Your task to perform on an android device: Go to settings Image 0: 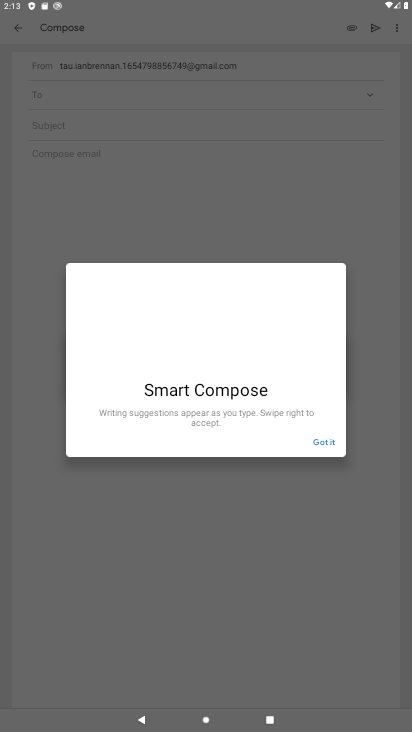
Step 0: press home button
Your task to perform on an android device: Go to settings Image 1: 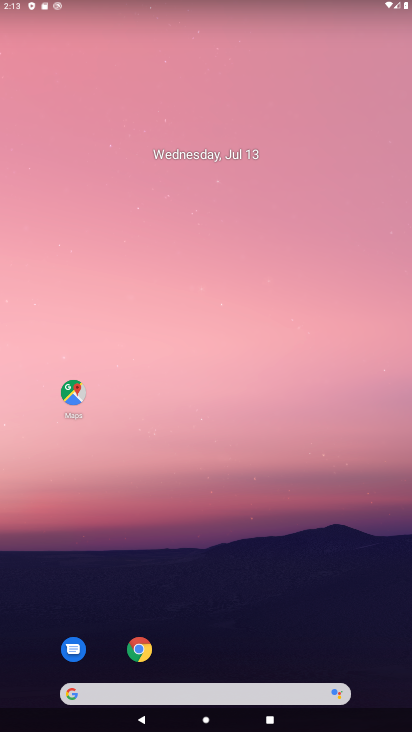
Step 1: drag from (198, 554) to (184, 171)
Your task to perform on an android device: Go to settings Image 2: 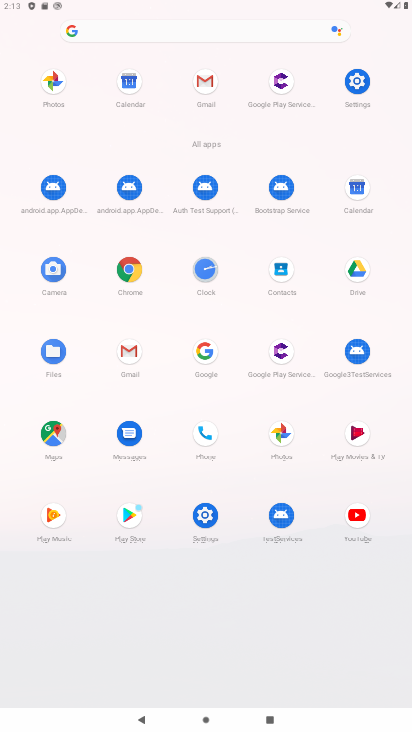
Step 2: click (357, 85)
Your task to perform on an android device: Go to settings Image 3: 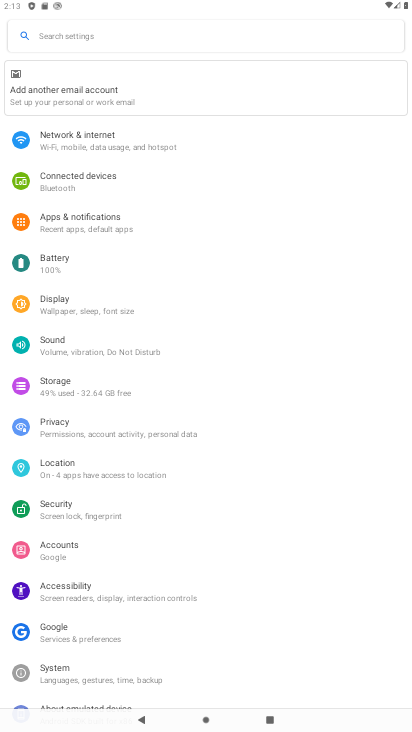
Step 3: task complete